Your task to perform on an android device: turn notification dots off Image 0: 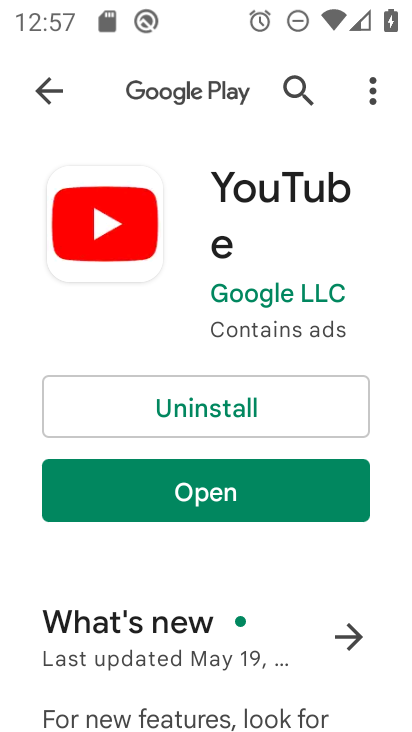
Step 0: press home button
Your task to perform on an android device: turn notification dots off Image 1: 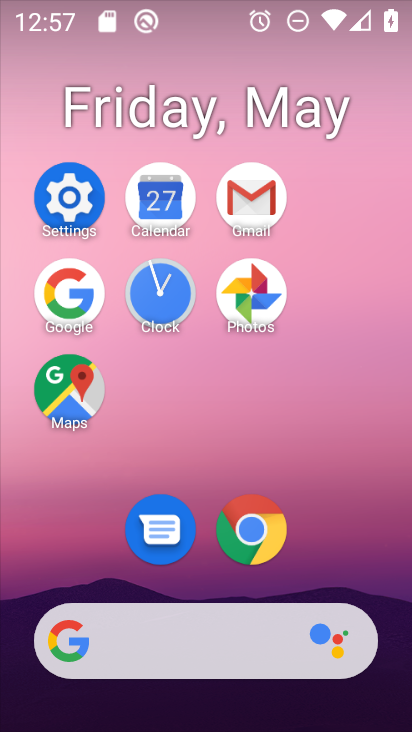
Step 1: click (83, 198)
Your task to perform on an android device: turn notification dots off Image 2: 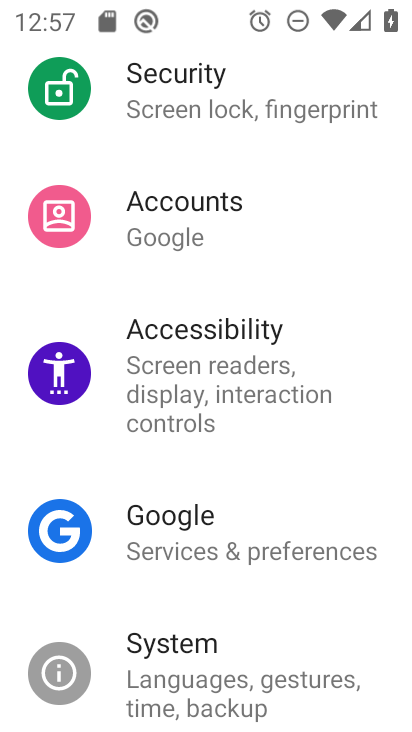
Step 2: drag from (294, 205) to (324, 704)
Your task to perform on an android device: turn notification dots off Image 3: 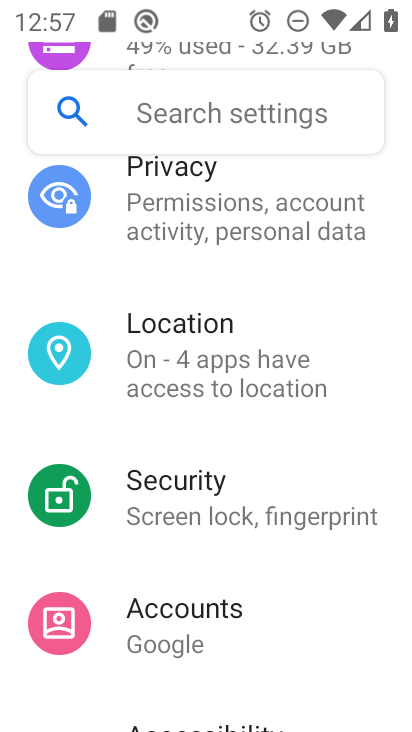
Step 3: drag from (322, 254) to (303, 580)
Your task to perform on an android device: turn notification dots off Image 4: 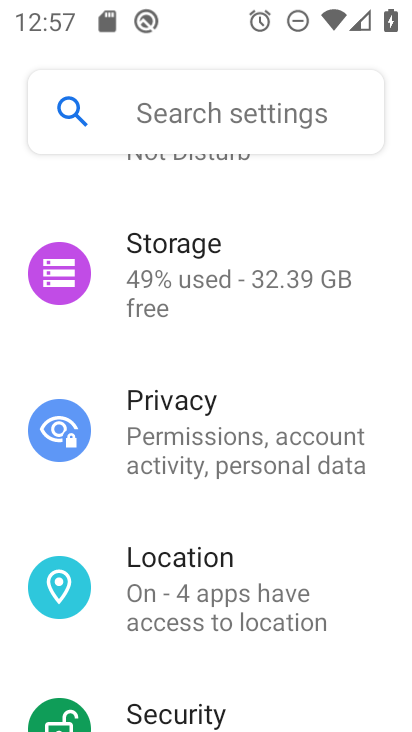
Step 4: drag from (304, 230) to (287, 659)
Your task to perform on an android device: turn notification dots off Image 5: 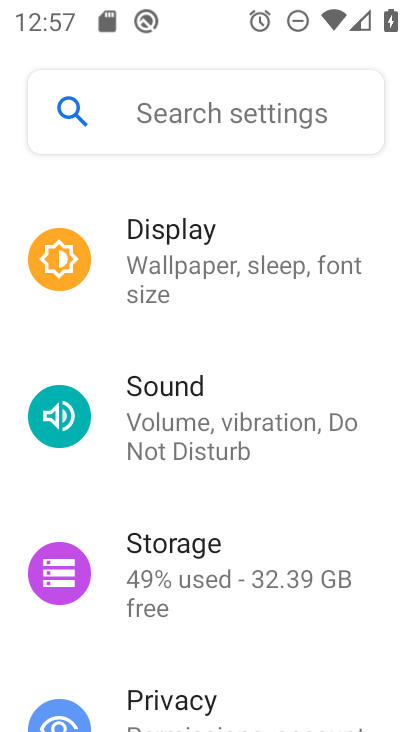
Step 5: drag from (313, 248) to (298, 587)
Your task to perform on an android device: turn notification dots off Image 6: 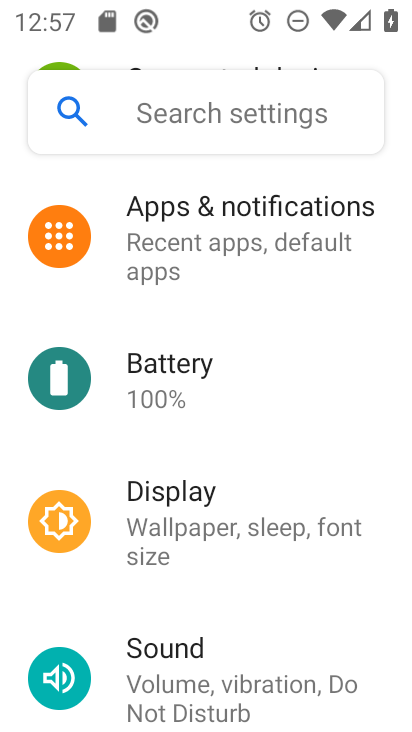
Step 6: click (298, 209)
Your task to perform on an android device: turn notification dots off Image 7: 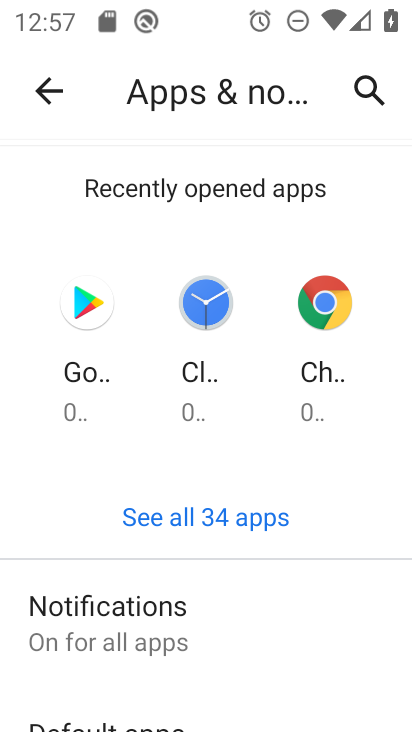
Step 7: drag from (232, 661) to (294, 118)
Your task to perform on an android device: turn notification dots off Image 8: 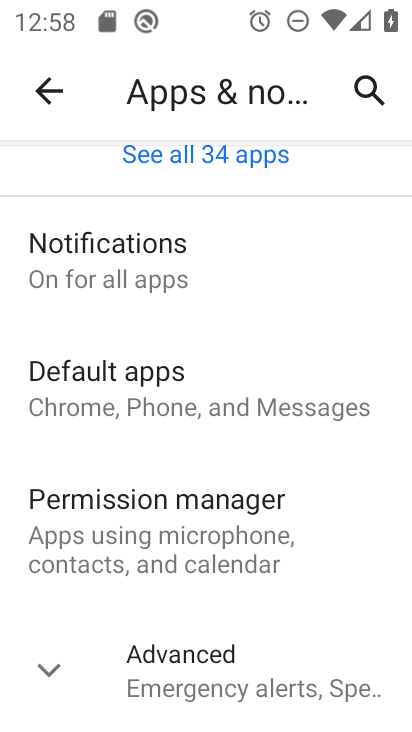
Step 8: click (191, 685)
Your task to perform on an android device: turn notification dots off Image 9: 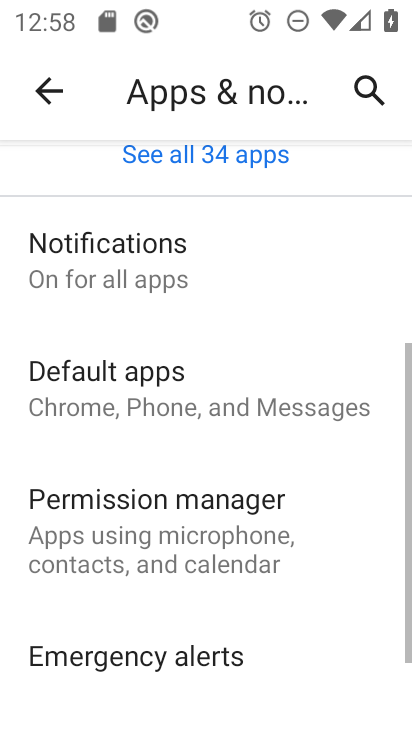
Step 9: drag from (206, 630) to (229, 211)
Your task to perform on an android device: turn notification dots off Image 10: 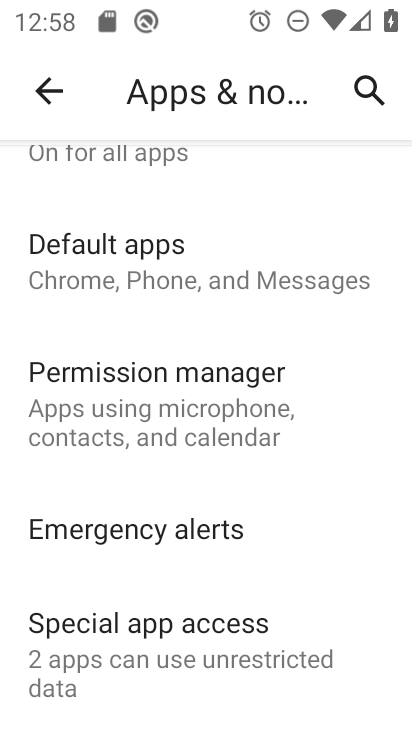
Step 10: drag from (314, 630) to (275, 199)
Your task to perform on an android device: turn notification dots off Image 11: 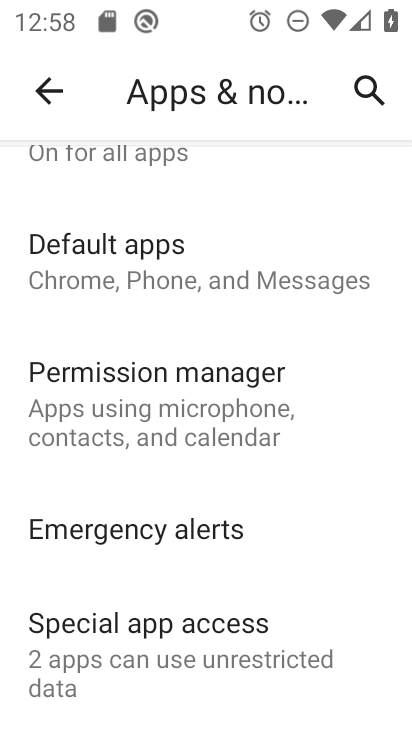
Step 11: drag from (226, 141) to (210, 685)
Your task to perform on an android device: turn notification dots off Image 12: 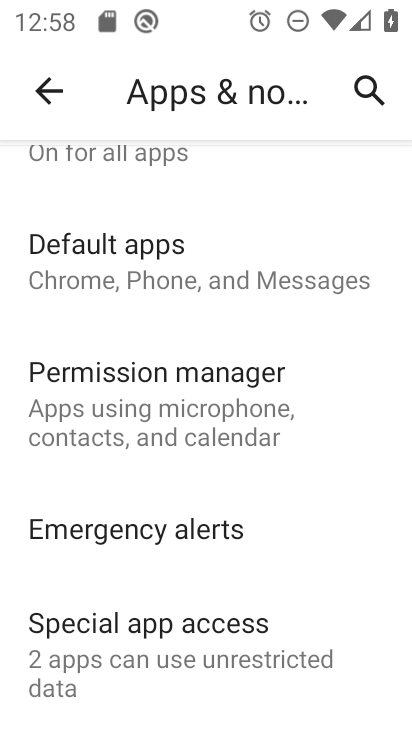
Step 12: drag from (224, 211) to (137, 692)
Your task to perform on an android device: turn notification dots off Image 13: 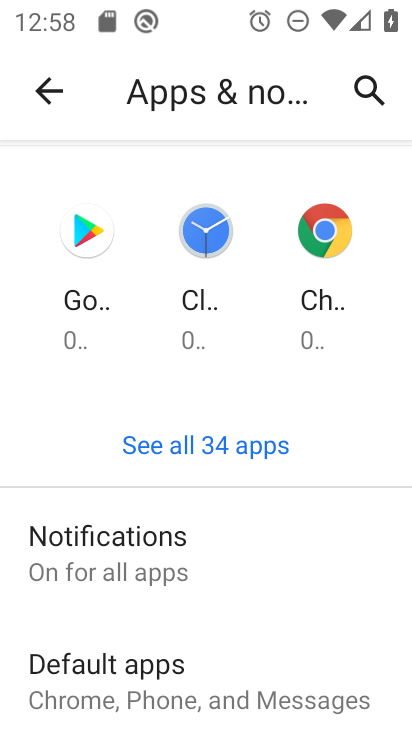
Step 13: click (67, 578)
Your task to perform on an android device: turn notification dots off Image 14: 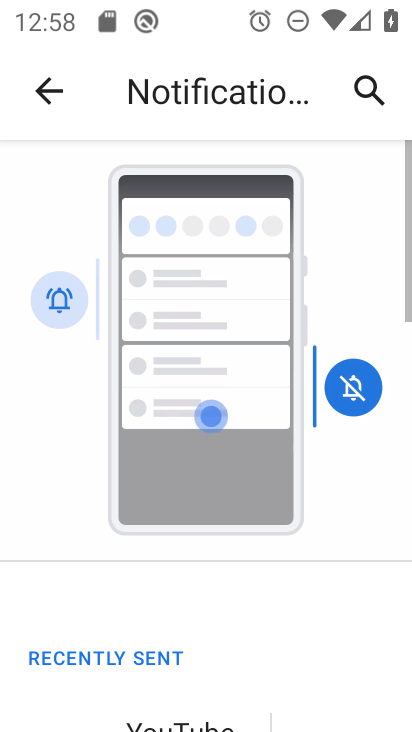
Step 14: drag from (284, 584) to (300, 268)
Your task to perform on an android device: turn notification dots off Image 15: 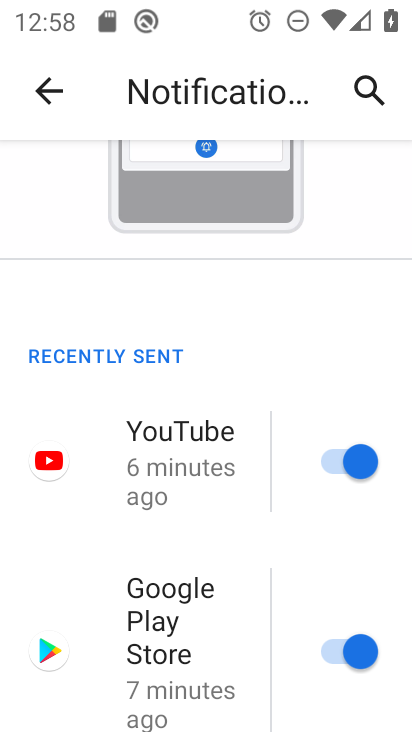
Step 15: drag from (294, 611) to (290, 185)
Your task to perform on an android device: turn notification dots off Image 16: 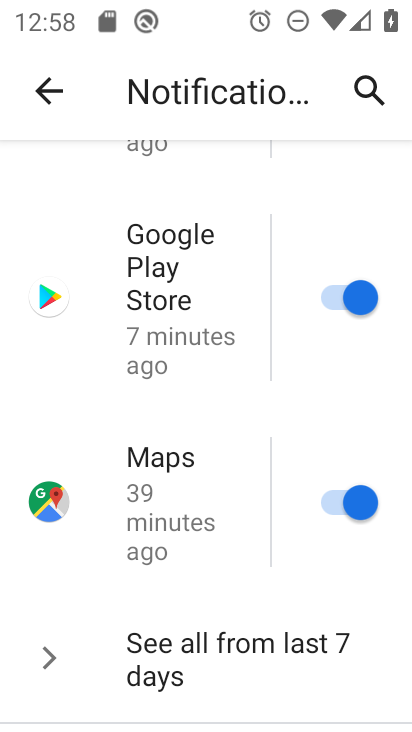
Step 16: drag from (244, 574) to (234, 191)
Your task to perform on an android device: turn notification dots off Image 17: 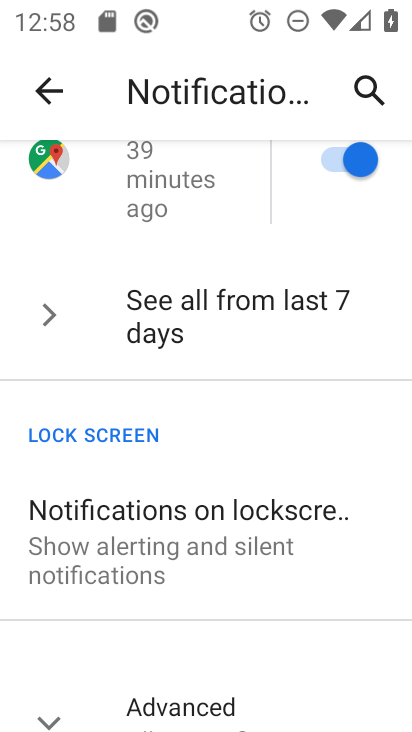
Step 17: drag from (282, 631) to (308, 244)
Your task to perform on an android device: turn notification dots off Image 18: 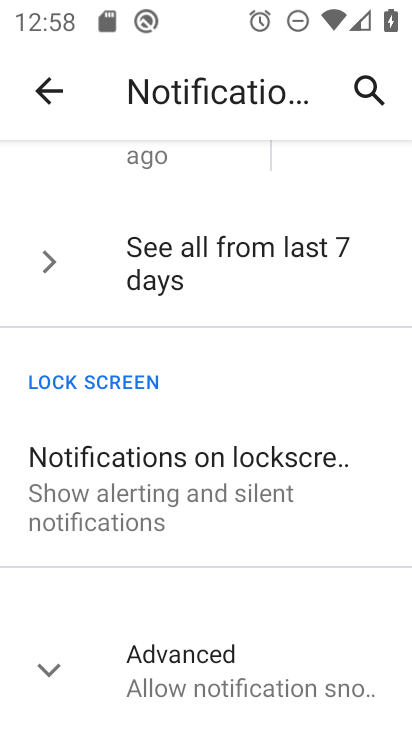
Step 18: click (216, 657)
Your task to perform on an android device: turn notification dots off Image 19: 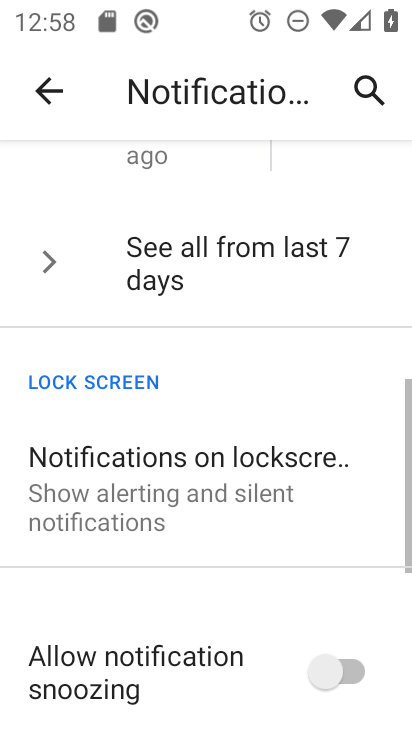
Step 19: drag from (216, 657) to (255, 319)
Your task to perform on an android device: turn notification dots off Image 20: 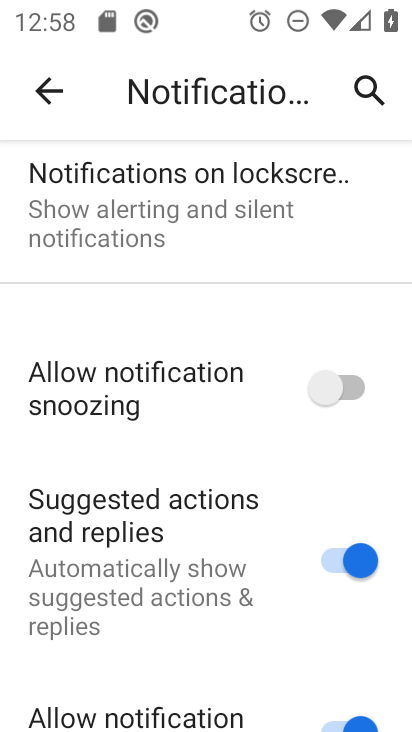
Step 20: drag from (302, 682) to (337, 320)
Your task to perform on an android device: turn notification dots off Image 21: 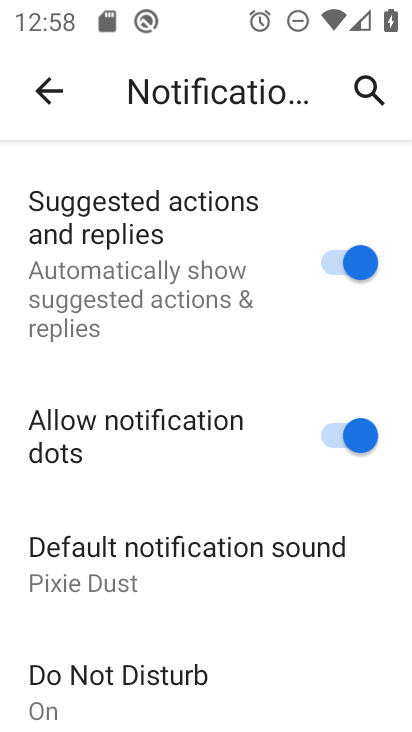
Step 21: click (368, 438)
Your task to perform on an android device: turn notification dots off Image 22: 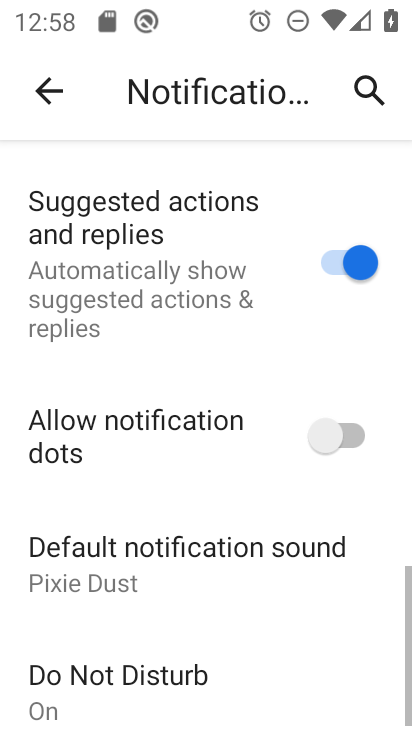
Step 22: task complete